Your task to perform on an android device: see sites visited before in the chrome app Image 0: 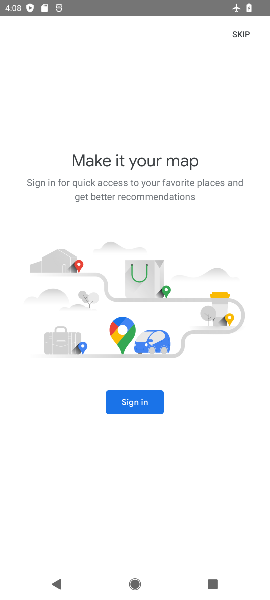
Step 0: press home button
Your task to perform on an android device: see sites visited before in the chrome app Image 1: 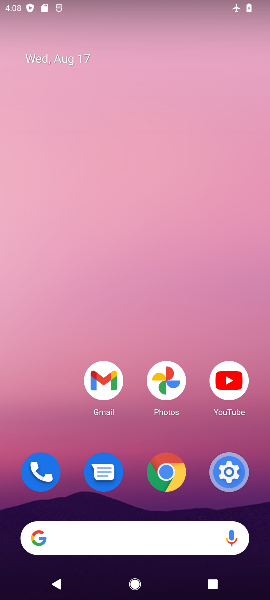
Step 1: click (178, 469)
Your task to perform on an android device: see sites visited before in the chrome app Image 2: 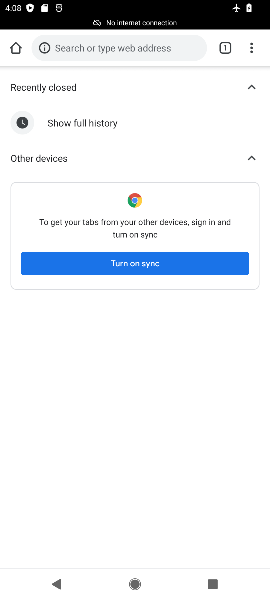
Step 2: click (246, 46)
Your task to perform on an android device: see sites visited before in the chrome app Image 3: 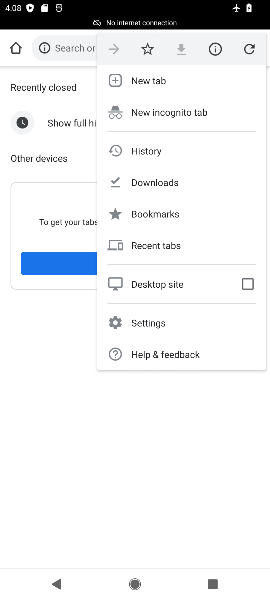
Step 3: click (153, 248)
Your task to perform on an android device: see sites visited before in the chrome app Image 4: 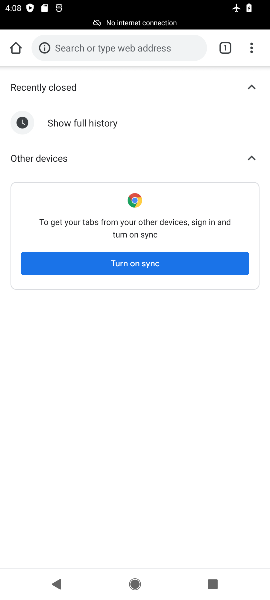
Step 4: task complete